Your task to perform on an android device: Open the calendar app, open the side menu, and click the "Day" option Image 0: 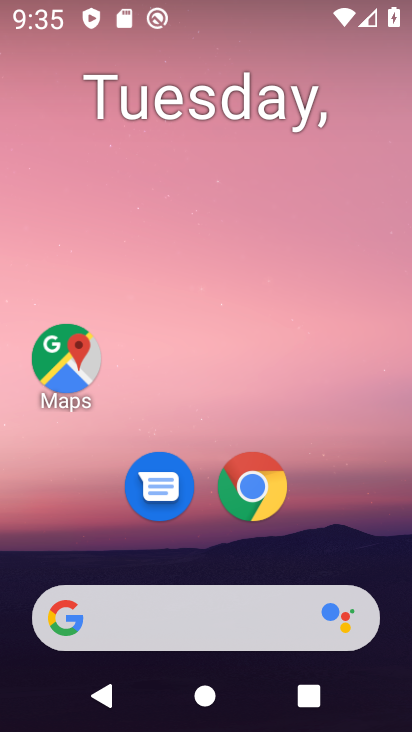
Step 0: press home button
Your task to perform on an android device: Open the calendar app, open the side menu, and click the "Day" option Image 1: 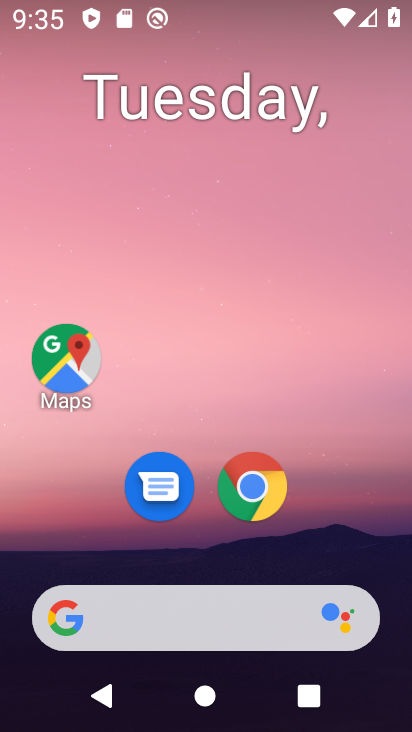
Step 1: drag from (374, 556) to (361, 158)
Your task to perform on an android device: Open the calendar app, open the side menu, and click the "Day" option Image 2: 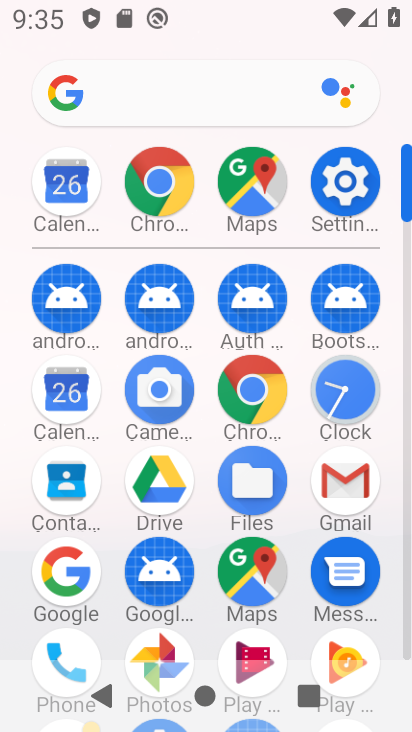
Step 2: click (61, 398)
Your task to perform on an android device: Open the calendar app, open the side menu, and click the "Day" option Image 3: 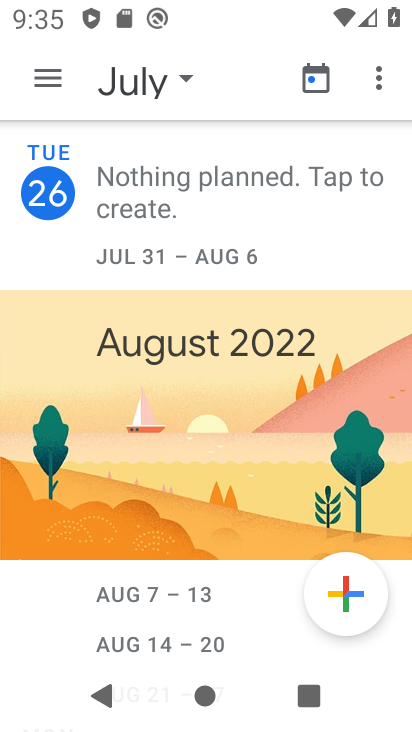
Step 3: click (52, 67)
Your task to perform on an android device: Open the calendar app, open the side menu, and click the "Day" option Image 4: 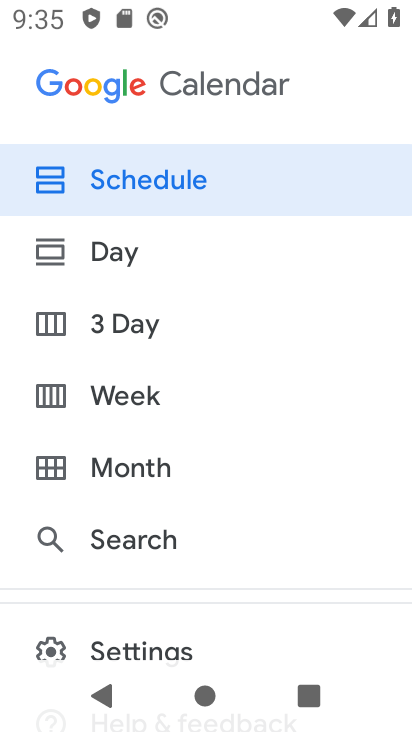
Step 4: click (113, 257)
Your task to perform on an android device: Open the calendar app, open the side menu, and click the "Day" option Image 5: 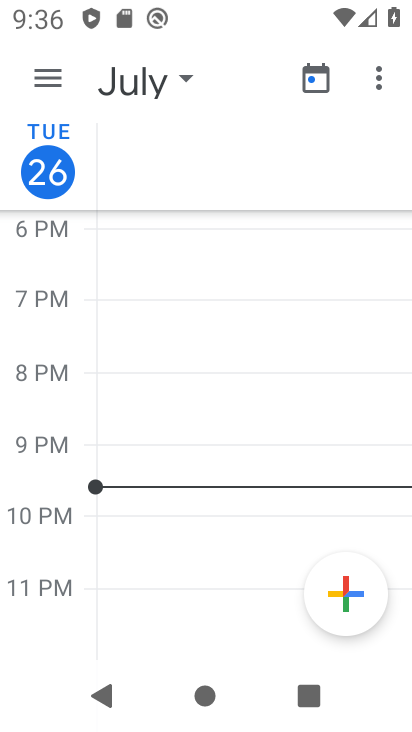
Step 5: task complete